Your task to perform on an android device: change notification settings in the gmail app Image 0: 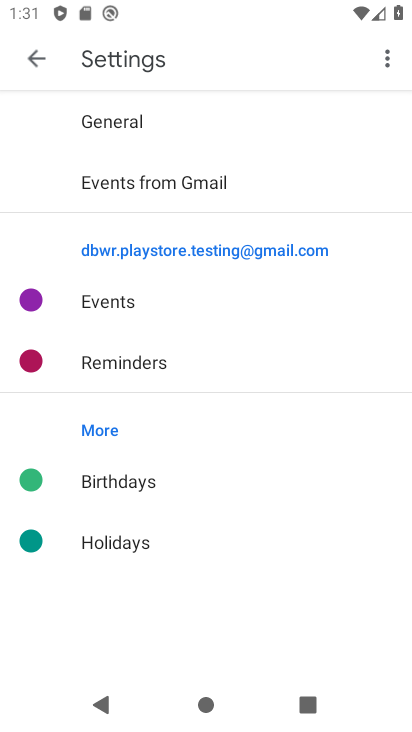
Step 0: press home button
Your task to perform on an android device: change notification settings in the gmail app Image 1: 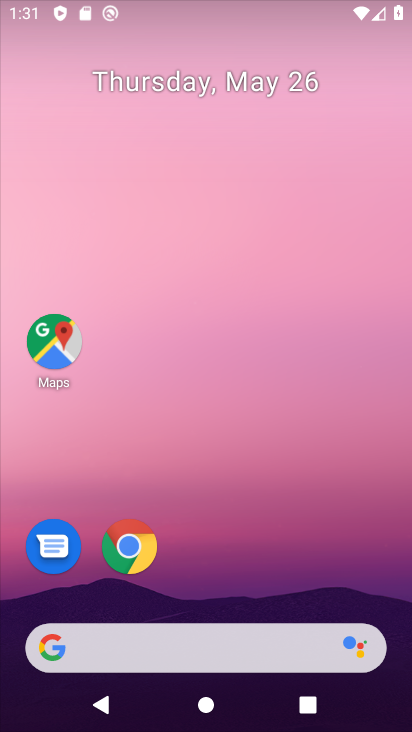
Step 1: drag from (285, 567) to (284, 104)
Your task to perform on an android device: change notification settings in the gmail app Image 2: 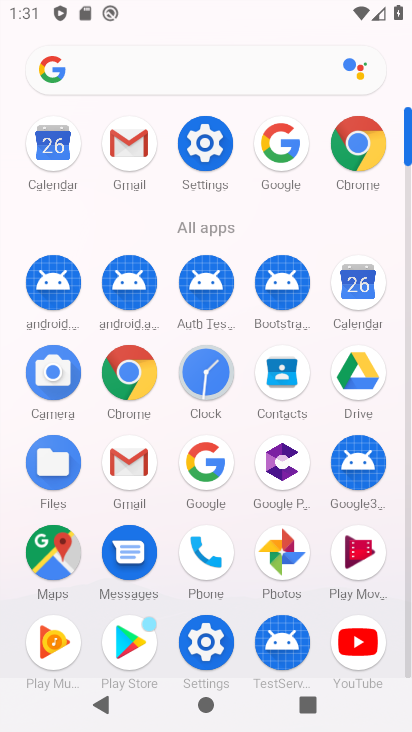
Step 2: click (130, 145)
Your task to perform on an android device: change notification settings in the gmail app Image 3: 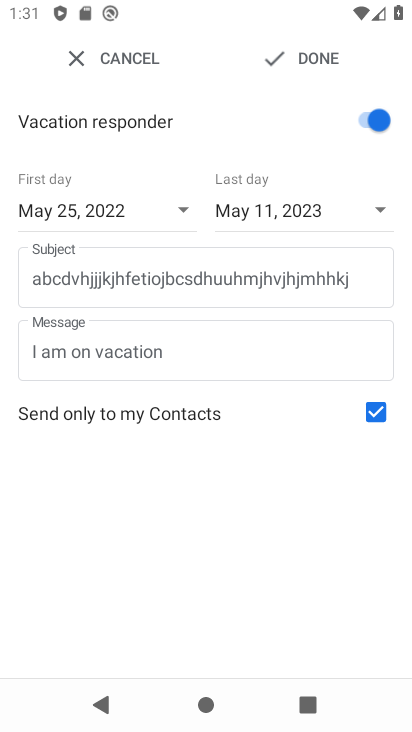
Step 3: press back button
Your task to perform on an android device: change notification settings in the gmail app Image 4: 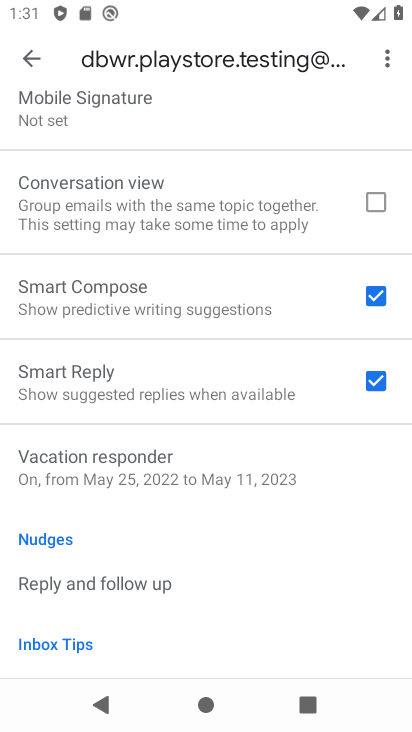
Step 4: drag from (158, 245) to (236, 602)
Your task to perform on an android device: change notification settings in the gmail app Image 5: 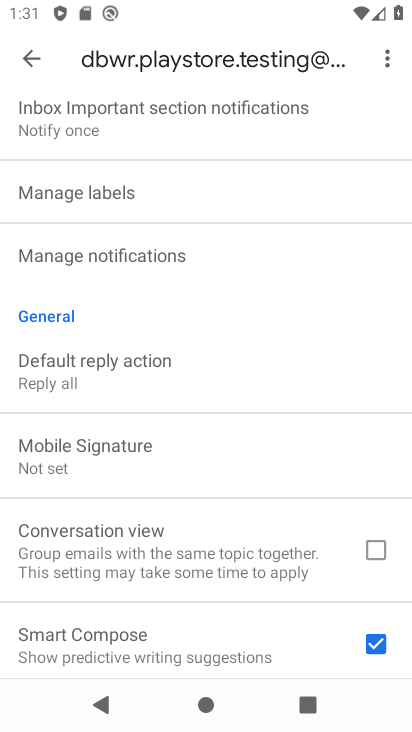
Step 5: drag from (171, 208) to (221, 533)
Your task to perform on an android device: change notification settings in the gmail app Image 6: 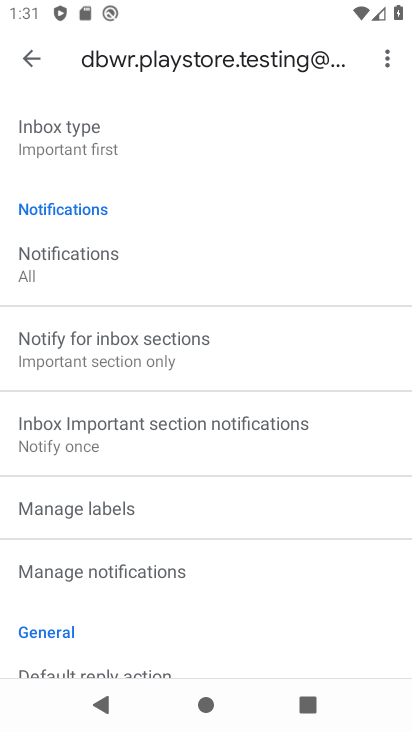
Step 6: drag from (143, 181) to (139, 252)
Your task to perform on an android device: change notification settings in the gmail app Image 7: 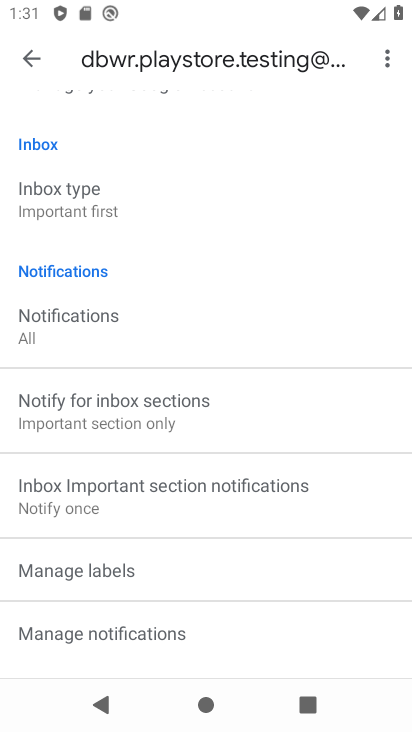
Step 7: click (76, 335)
Your task to perform on an android device: change notification settings in the gmail app Image 8: 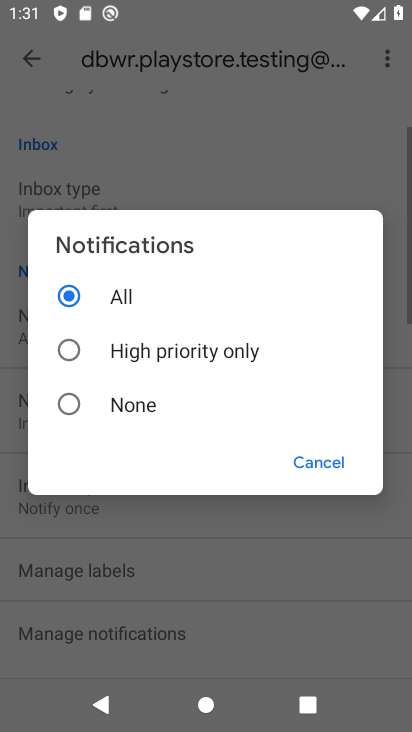
Step 8: click (66, 413)
Your task to perform on an android device: change notification settings in the gmail app Image 9: 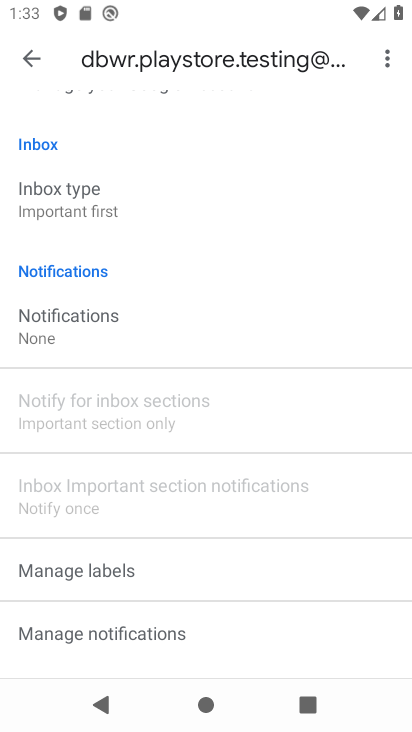
Step 9: task complete